Your task to perform on an android device: turn off sleep mode Image 0: 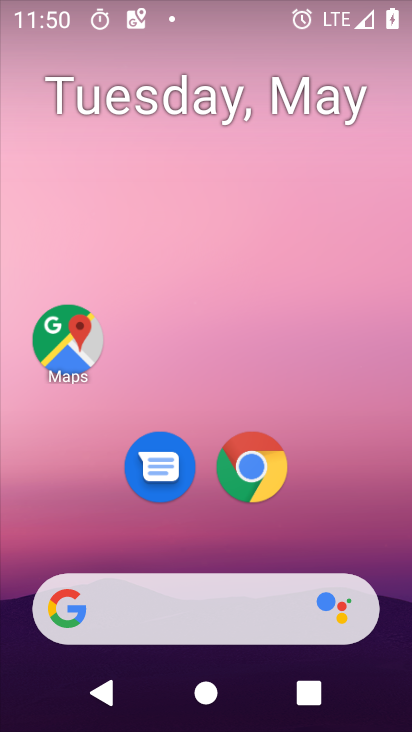
Step 0: drag from (382, 505) to (224, 15)
Your task to perform on an android device: turn off sleep mode Image 1: 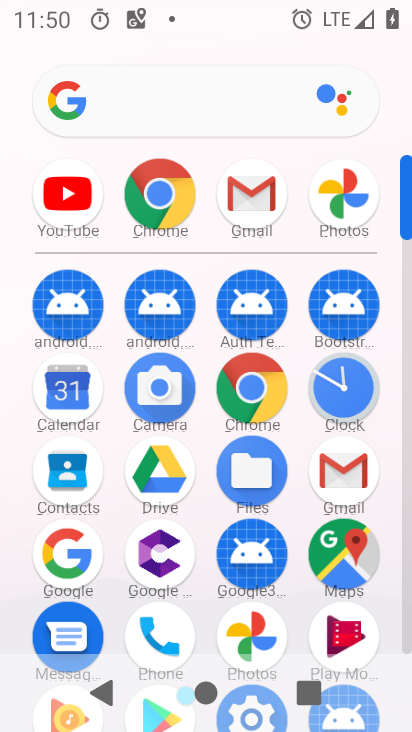
Step 1: drag from (12, 559) to (4, 204)
Your task to perform on an android device: turn off sleep mode Image 2: 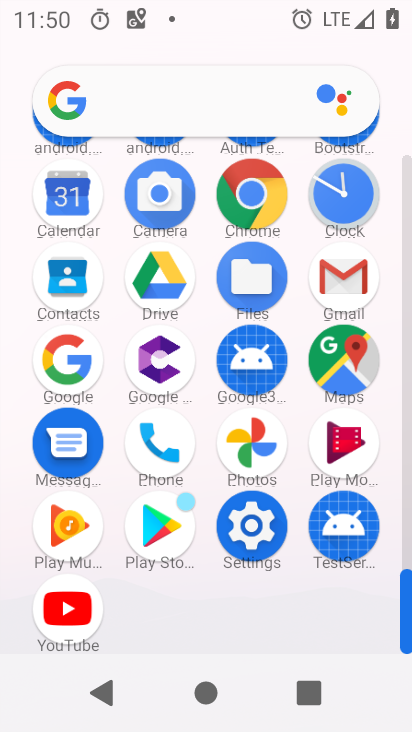
Step 2: click (252, 525)
Your task to perform on an android device: turn off sleep mode Image 3: 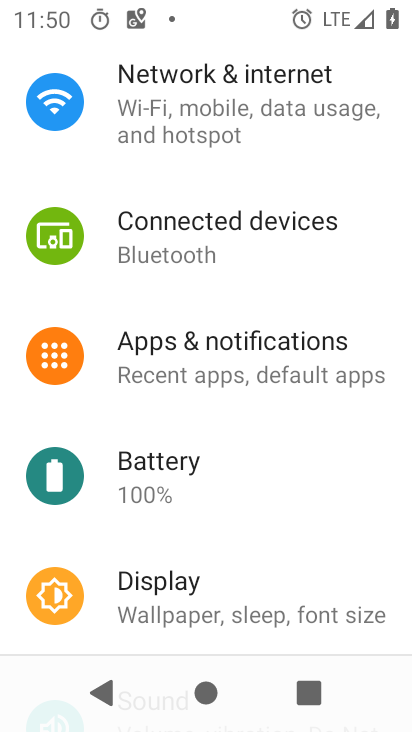
Step 3: drag from (289, 182) to (282, 579)
Your task to perform on an android device: turn off sleep mode Image 4: 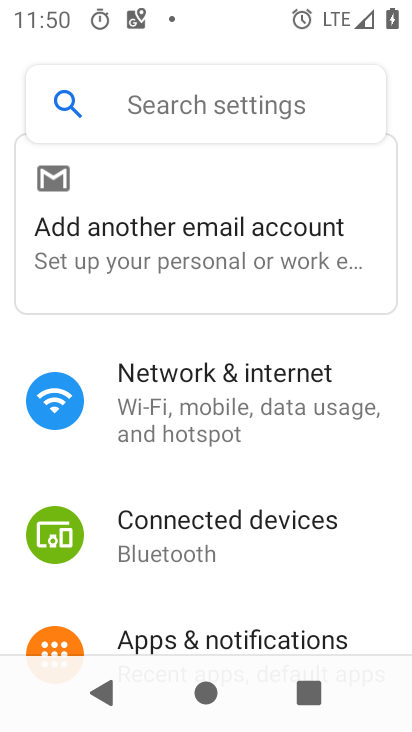
Step 4: drag from (327, 515) to (319, 204)
Your task to perform on an android device: turn off sleep mode Image 5: 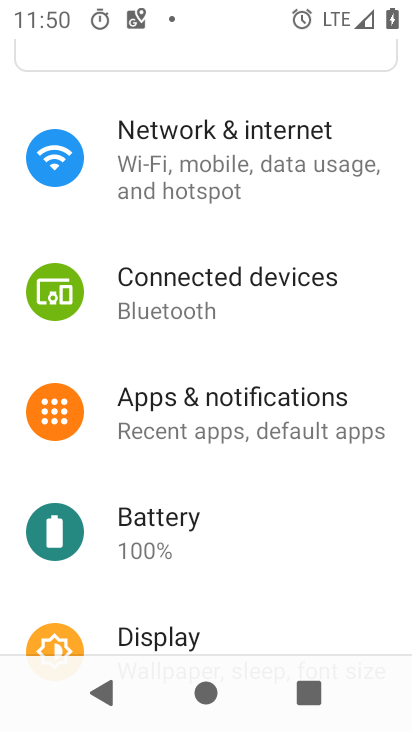
Step 5: click (288, 148)
Your task to perform on an android device: turn off sleep mode Image 6: 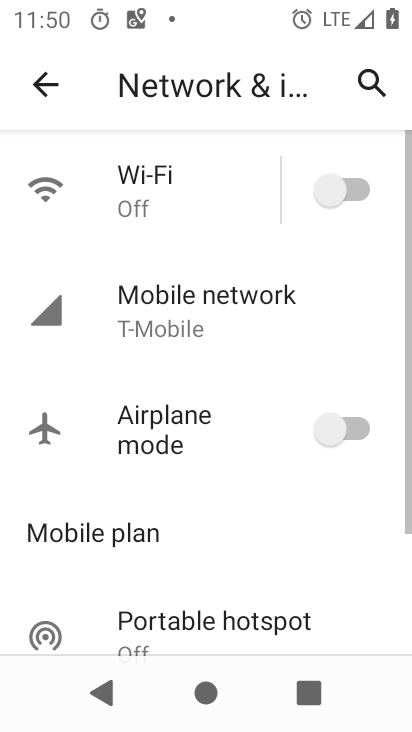
Step 6: drag from (177, 541) to (218, 161)
Your task to perform on an android device: turn off sleep mode Image 7: 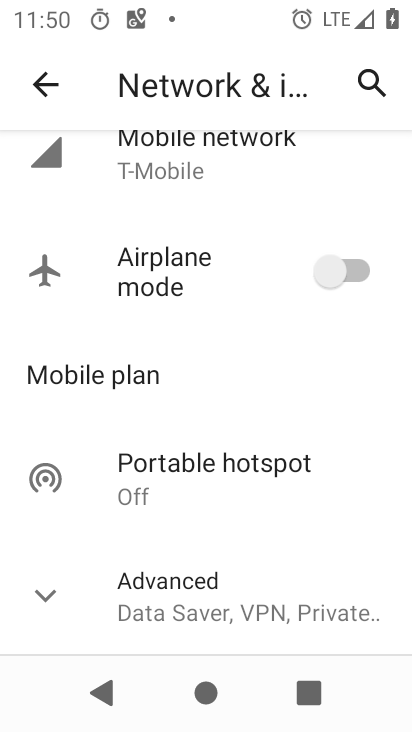
Step 7: click (26, 594)
Your task to perform on an android device: turn off sleep mode Image 8: 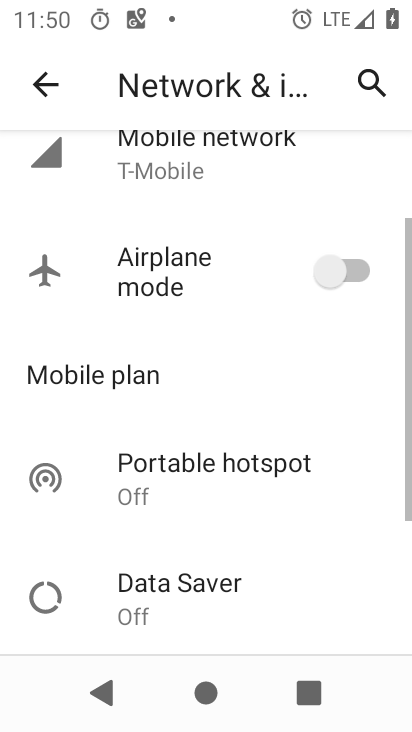
Step 8: task complete